Your task to perform on an android device: add a label to a message in the gmail app Image 0: 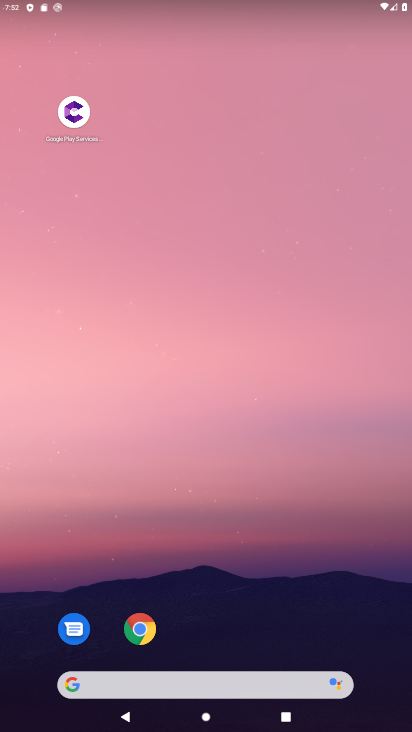
Step 0: drag from (172, 602) to (266, 9)
Your task to perform on an android device: add a label to a message in the gmail app Image 1: 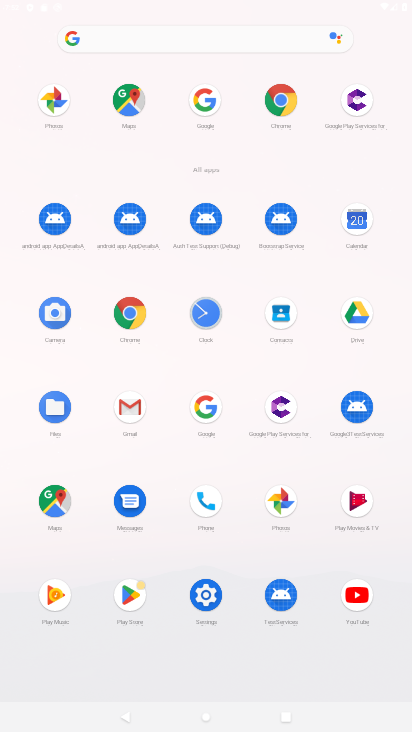
Step 1: click (123, 411)
Your task to perform on an android device: add a label to a message in the gmail app Image 2: 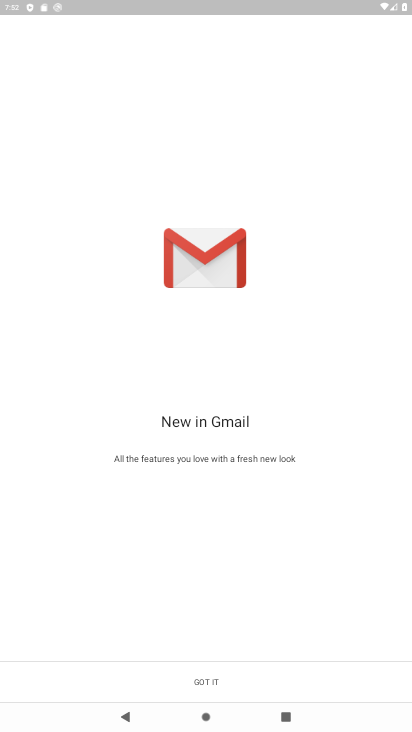
Step 2: click (199, 663)
Your task to perform on an android device: add a label to a message in the gmail app Image 3: 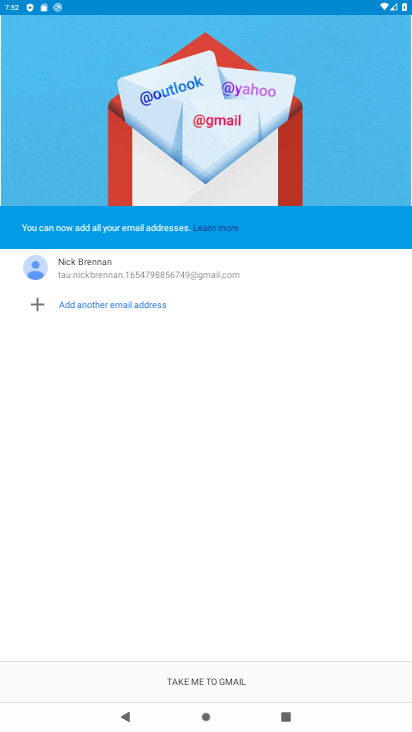
Step 3: click (206, 688)
Your task to perform on an android device: add a label to a message in the gmail app Image 4: 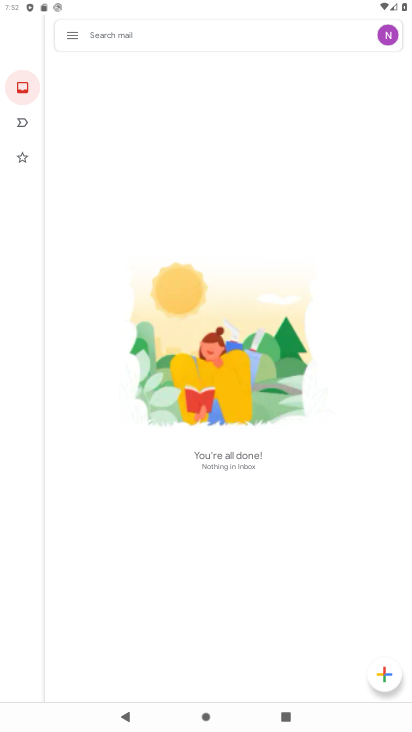
Step 4: click (77, 35)
Your task to perform on an android device: add a label to a message in the gmail app Image 5: 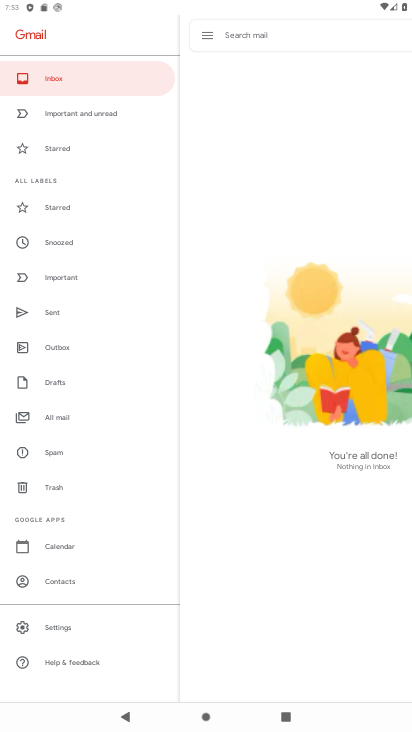
Step 5: click (52, 418)
Your task to perform on an android device: add a label to a message in the gmail app Image 6: 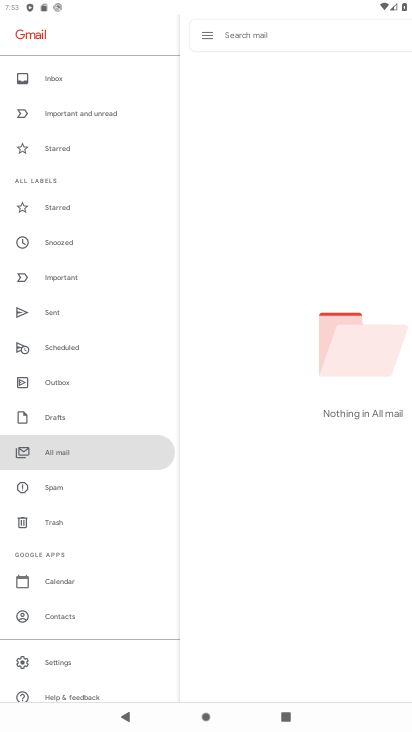
Step 6: task complete